Your task to perform on an android device: turn vacation reply on in the gmail app Image 0: 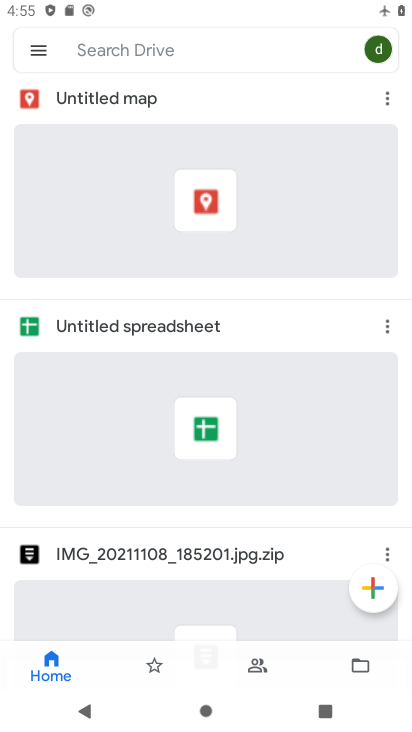
Step 0: press home button
Your task to perform on an android device: turn vacation reply on in the gmail app Image 1: 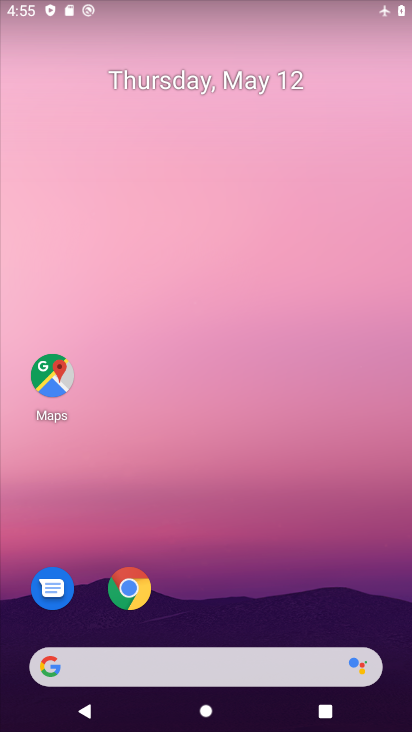
Step 1: drag from (220, 588) to (289, 21)
Your task to perform on an android device: turn vacation reply on in the gmail app Image 2: 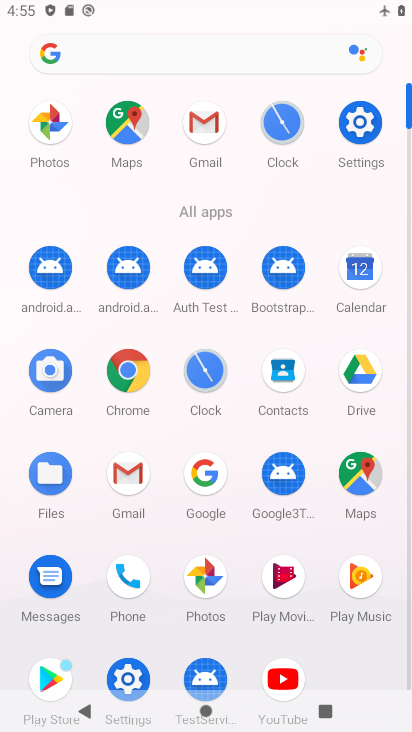
Step 2: click (126, 483)
Your task to perform on an android device: turn vacation reply on in the gmail app Image 3: 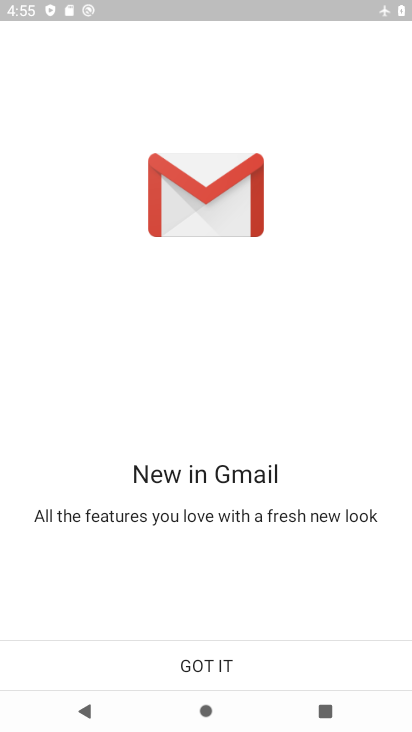
Step 3: click (226, 652)
Your task to perform on an android device: turn vacation reply on in the gmail app Image 4: 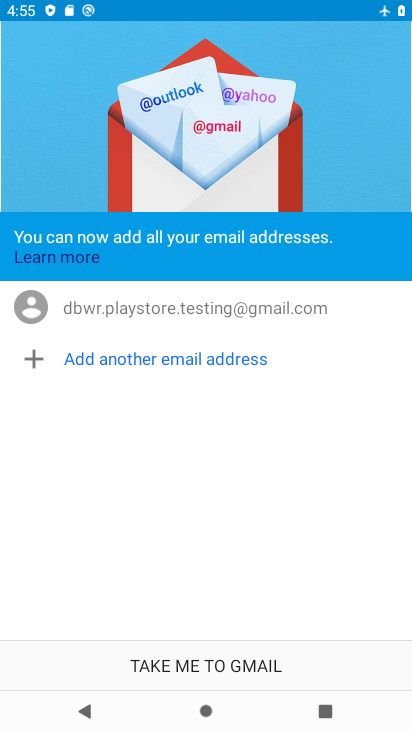
Step 4: click (178, 673)
Your task to perform on an android device: turn vacation reply on in the gmail app Image 5: 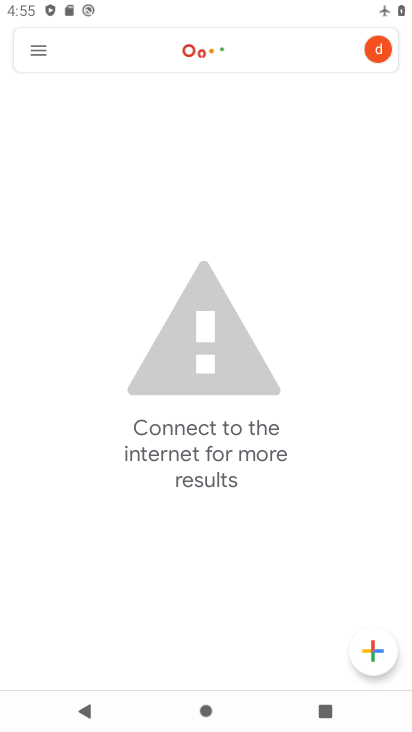
Step 5: click (44, 52)
Your task to perform on an android device: turn vacation reply on in the gmail app Image 6: 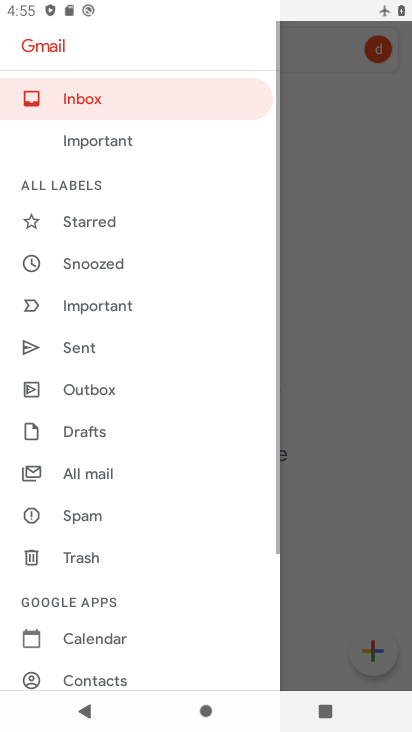
Step 6: drag from (70, 665) to (157, 178)
Your task to perform on an android device: turn vacation reply on in the gmail app Image 7: 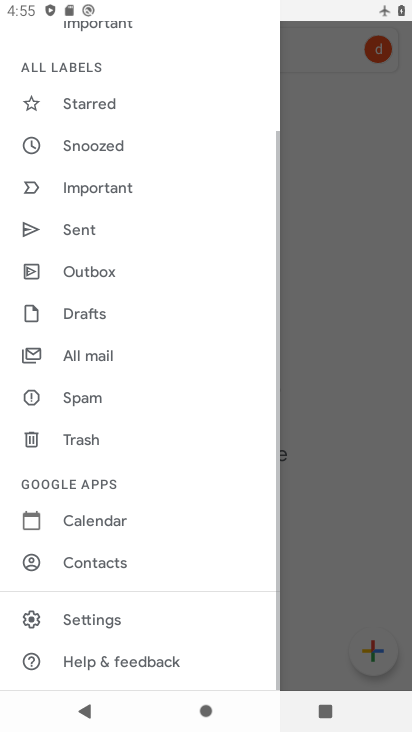
Step 7: click (95, 615)
Your task to perform on an android device: turn vacation reply on in the gmail app Image 8: 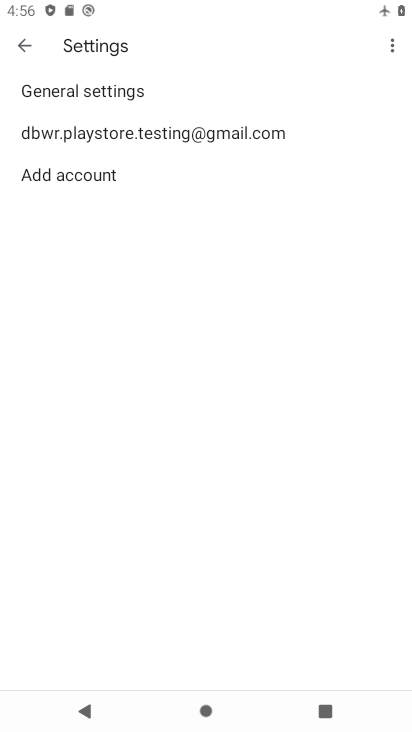
Step 8: click (77, 130)
Your task to perform on an android device: turn vacation reply on in the gmail app Image 9: 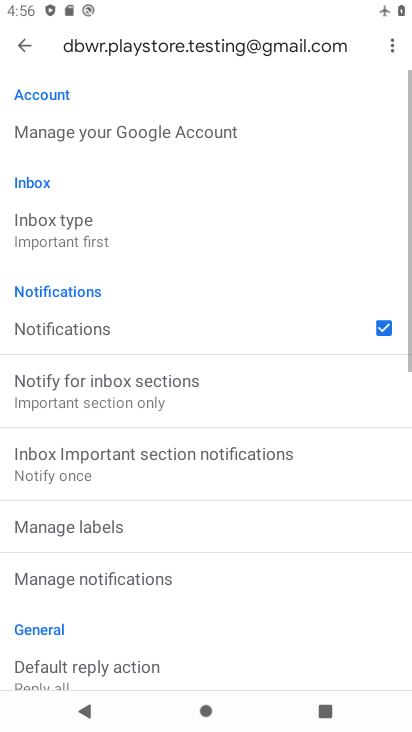
Step 9: drag from (170, 518) to (192, 107)
Your task to perform on an android device: turn vacation reply on in the gmail app Image 10: 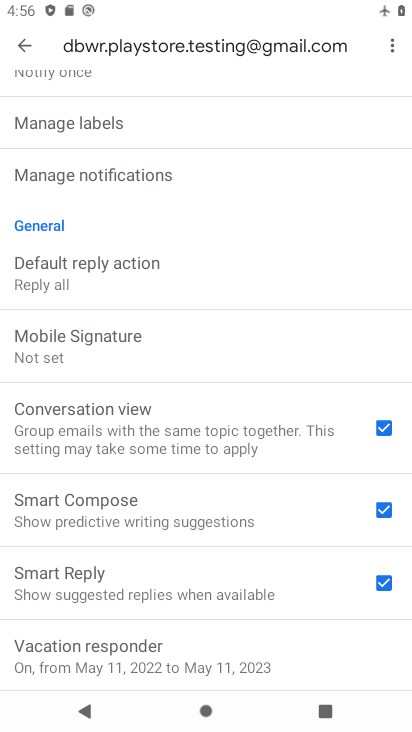
Step 10: drag from (137, 485) to (145, 387)
Your task to perform on an android device: turn vacation reply on in the gmail app Image 11: 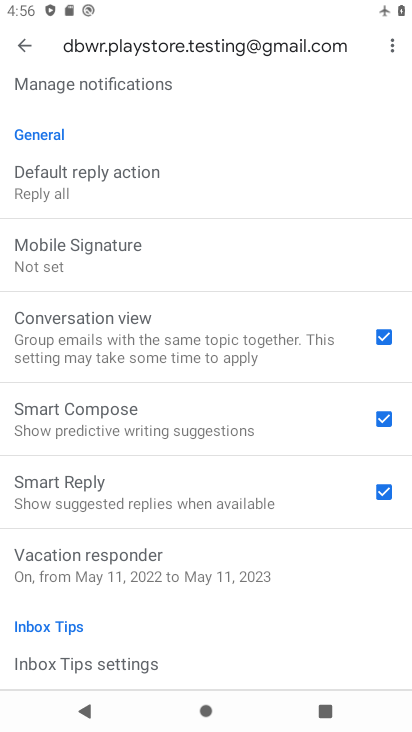
Step 11: click (103, 565)
Your task to perform on an android device: turn vacation reply on in the gmail app Image 12: 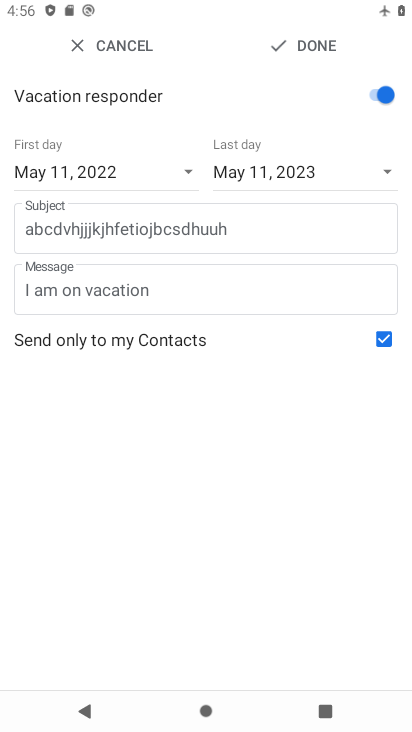
Step 12: task complete